Your task to perform on an android device: toggle location history Image 0: 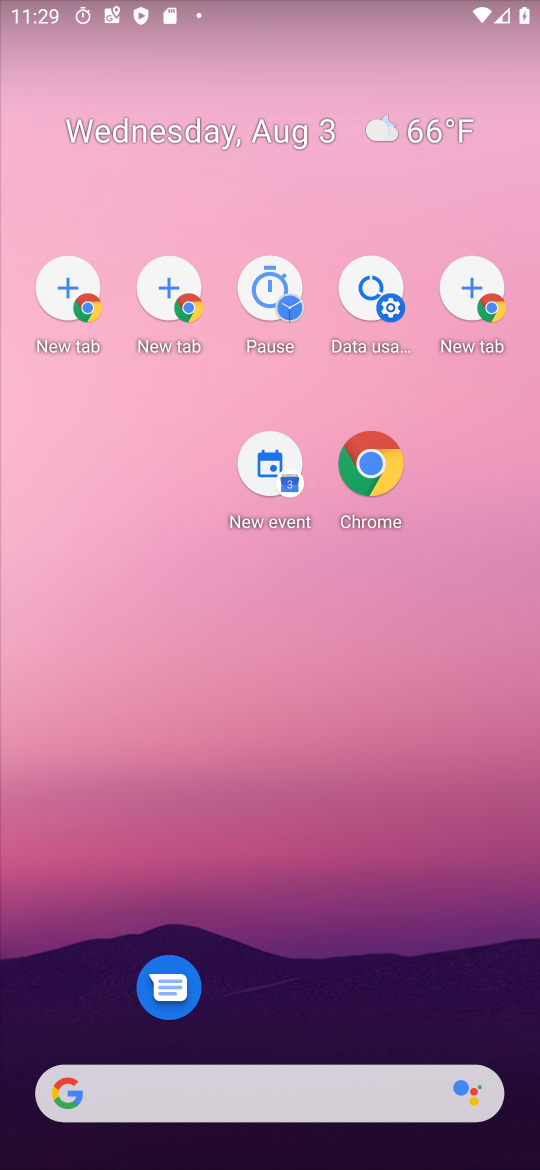
Step 0: drag from (337, 1049) to (496, 105)
Your task to perform on an android device: toggle location history Image 1: 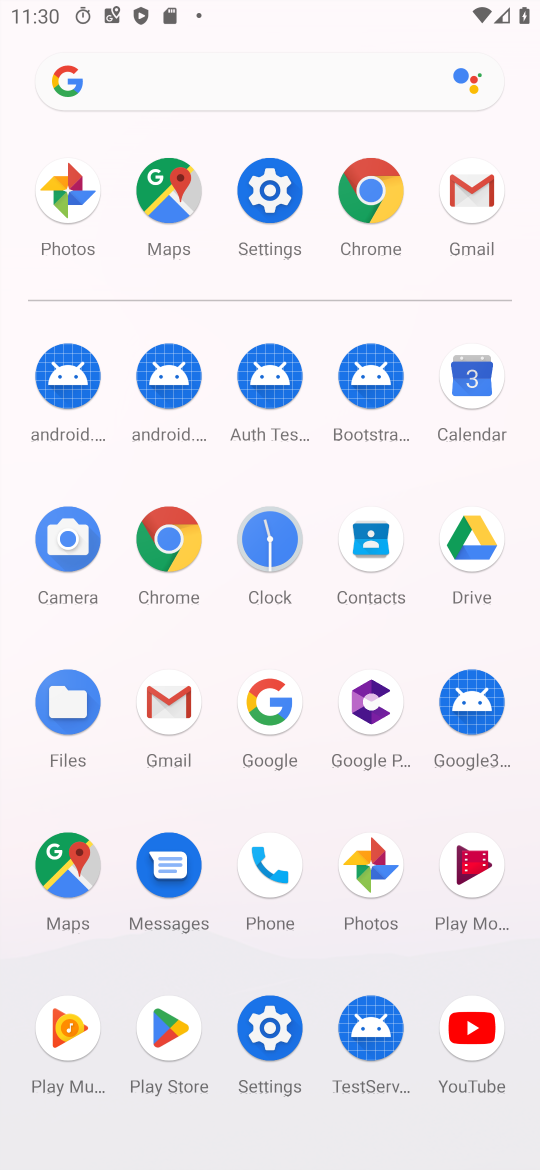
Step 1: click (273, 181)
Your task to perform on an android device: toggle location history Image 2: 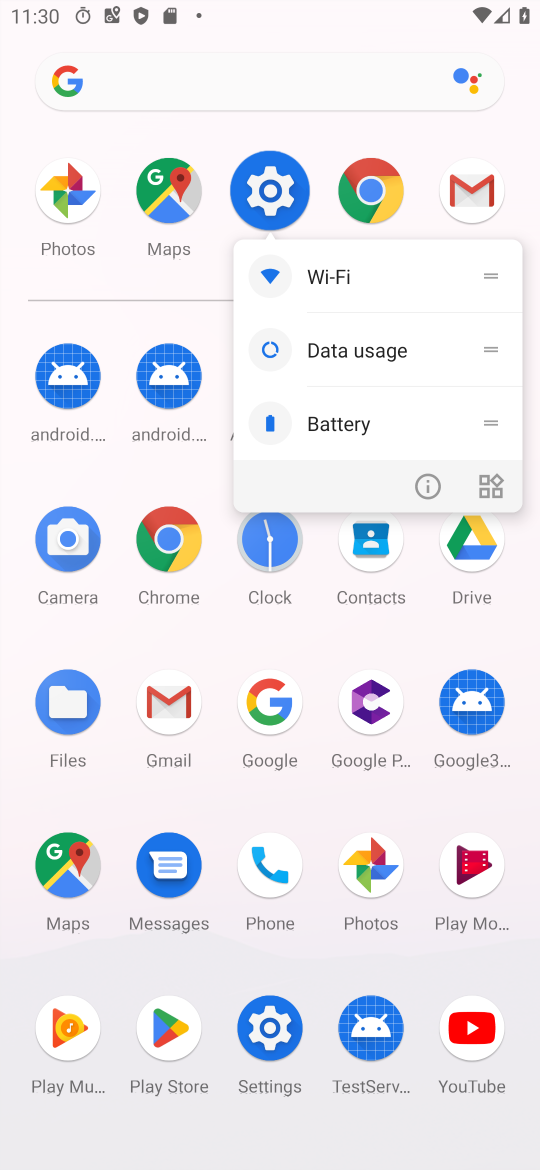
Step 2: click (272, 183)
Your task to perform on an android device: toggle location history Image 3: 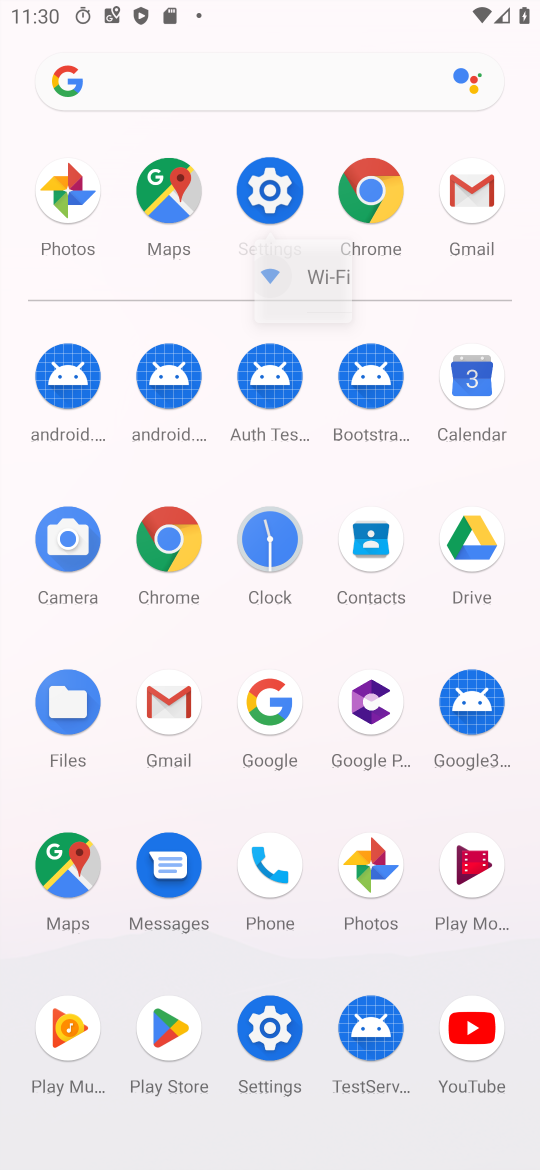
Step 3: click (274, 187)
Your task to perform on an android device: toggle location history Image 4: 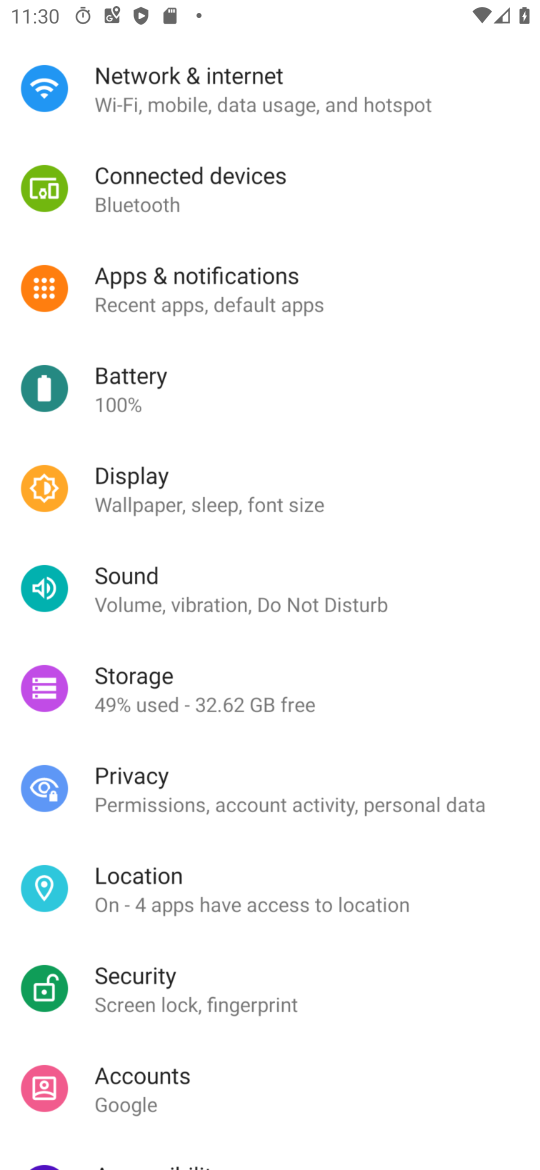
Step 4: click (283, 182)
Your task to perform on an android device: toggle location history Image 5: 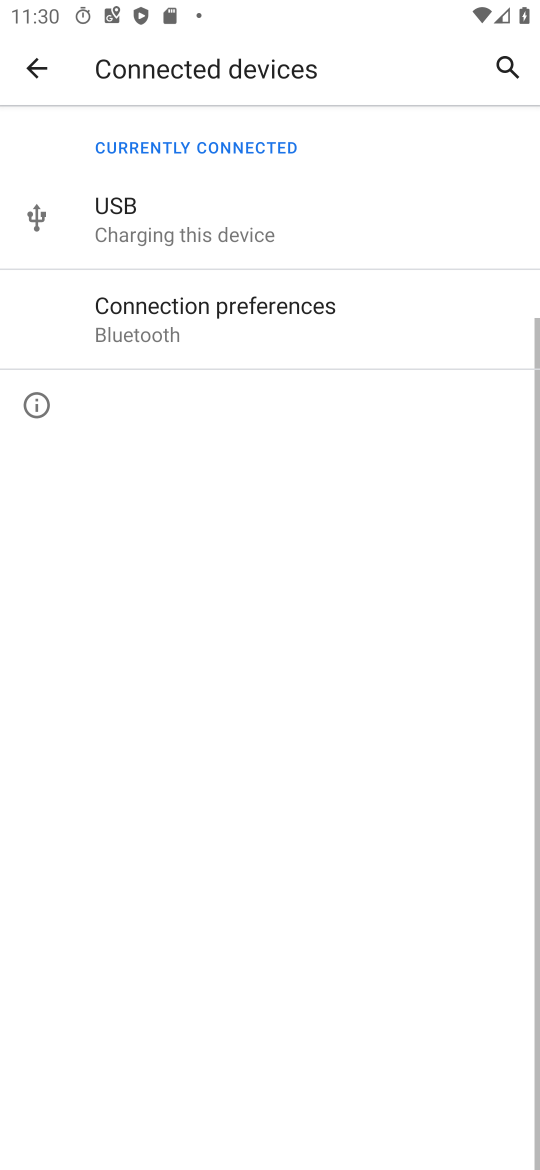
Step 5: click (31, 46)
Your task to perform on an android device: toggle location history Image 6: 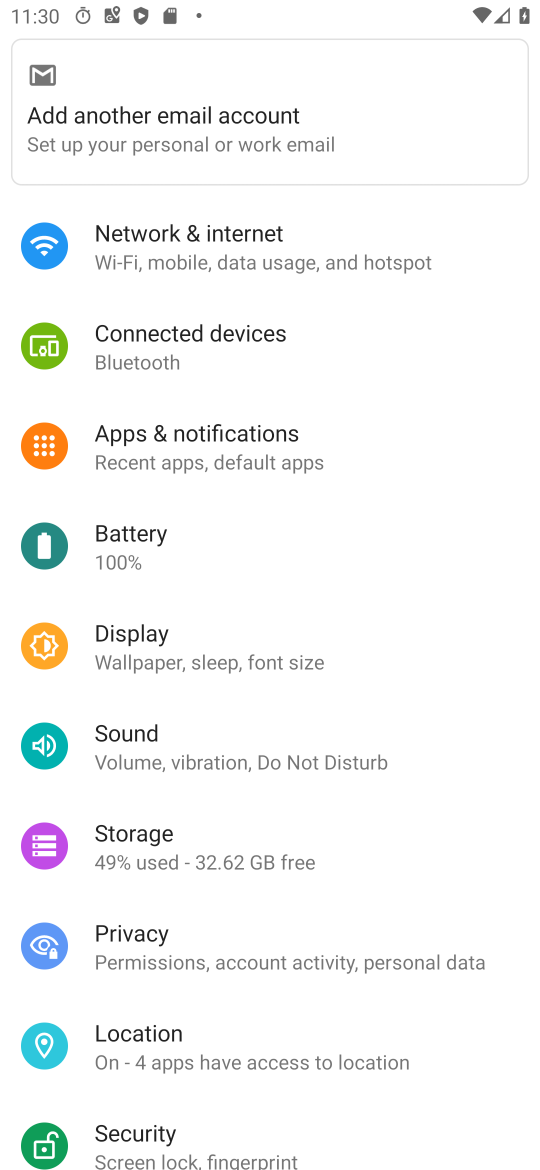
Step 6: click (159, 1042)
Your task to perform on an android device: toggle location history Image 7: 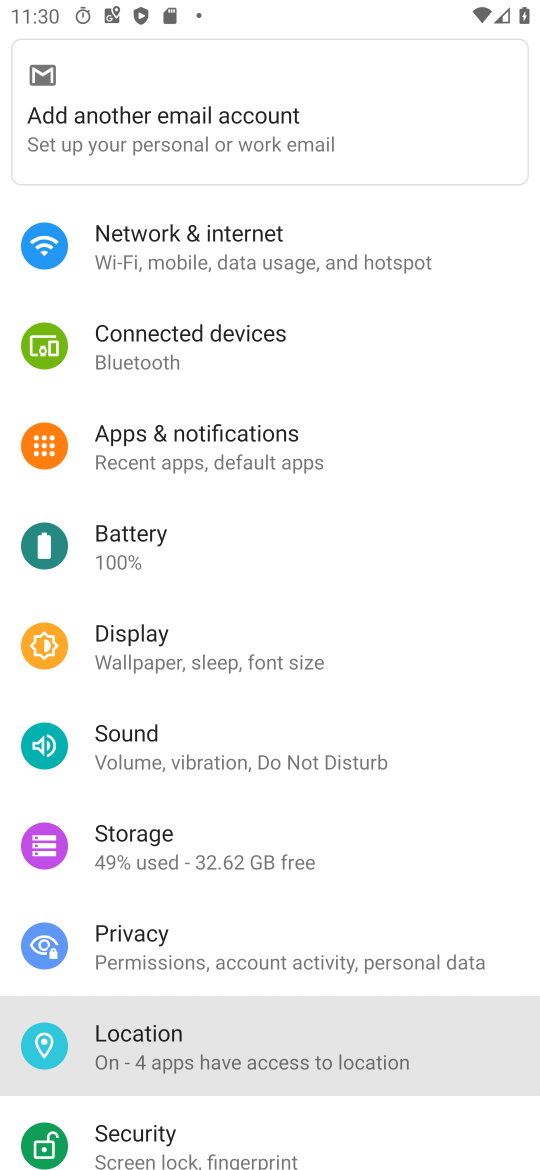
Step 7: click (157, 1043)
Your task to perform on an android device: toggle location history Image 8: 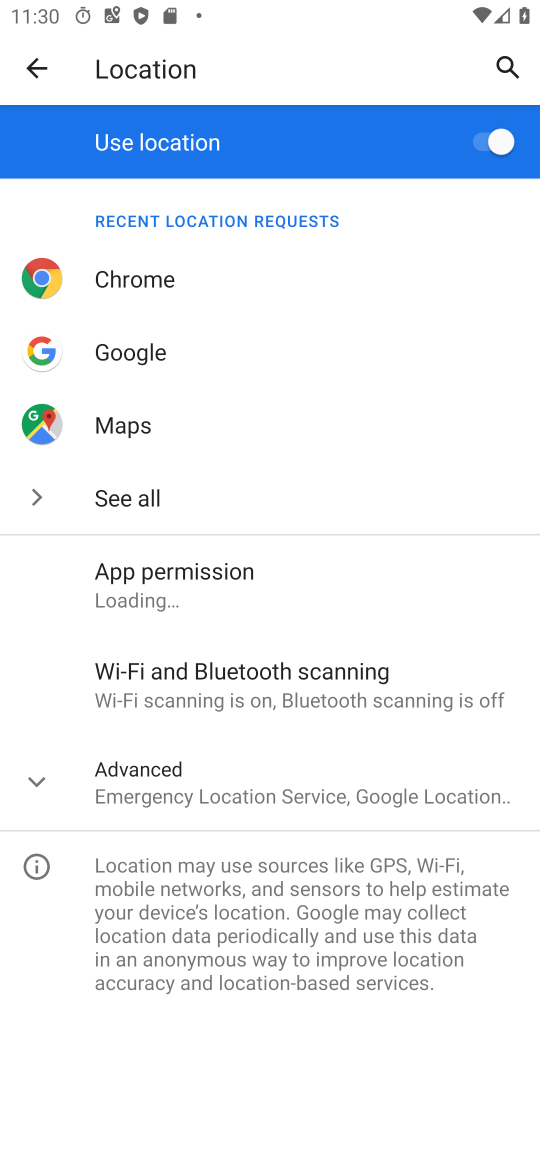
Step 8: click (167, 774)
Your task to perform on an android device: toggle location history Image 9: 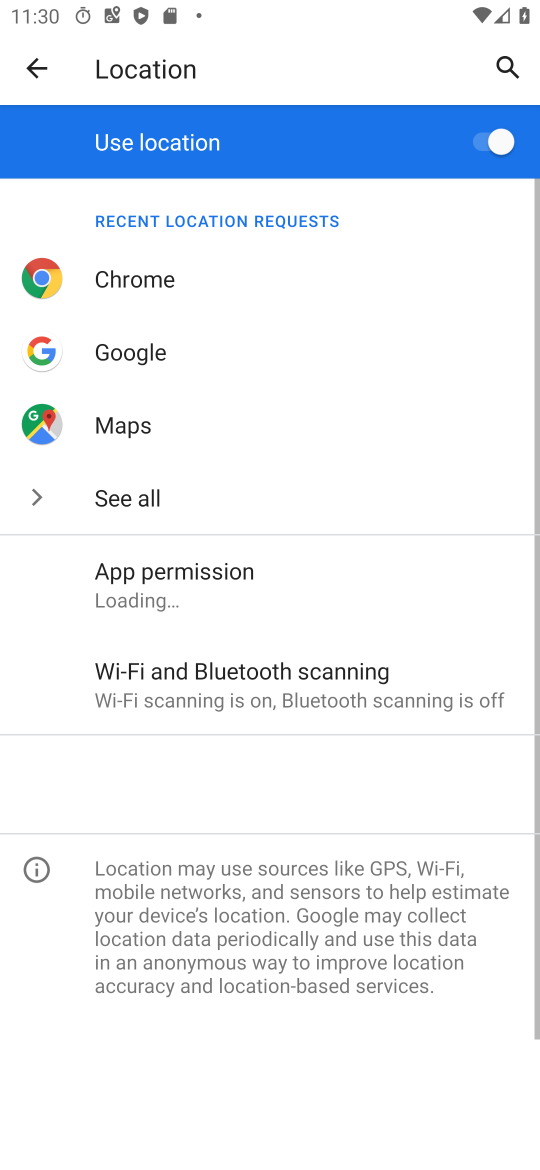
Step 9: click (167, 774)
Your task to perform on an android device: toggle location history Image 10: 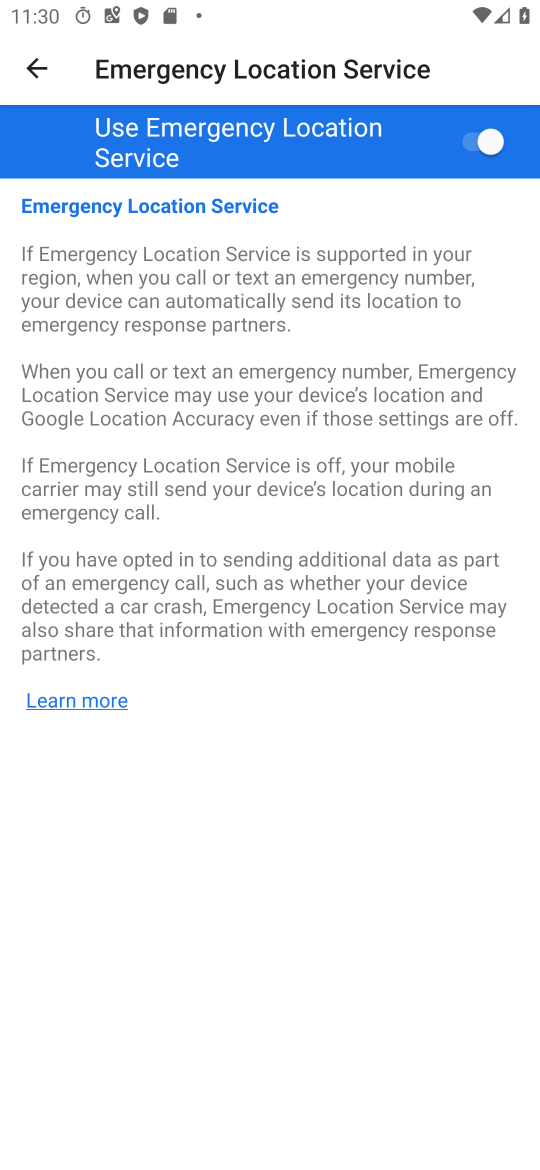
Step 10: click (33, 54)
Your task to perform on an android device: toggle location history Image 11: 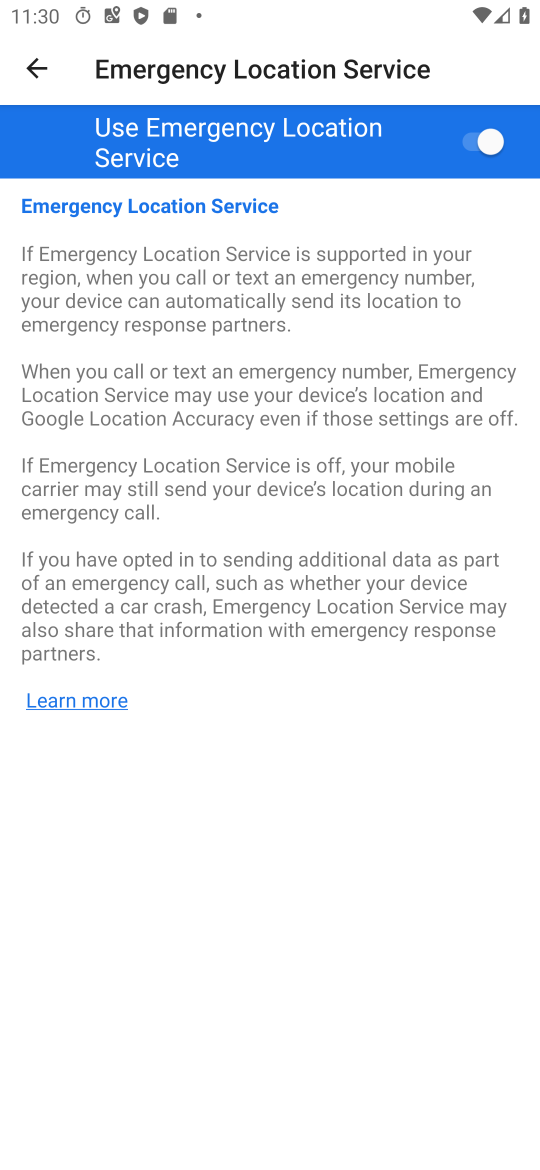
Step 11: click (39, 71)
Your task to perform on an android device: toggle location history Image 12: 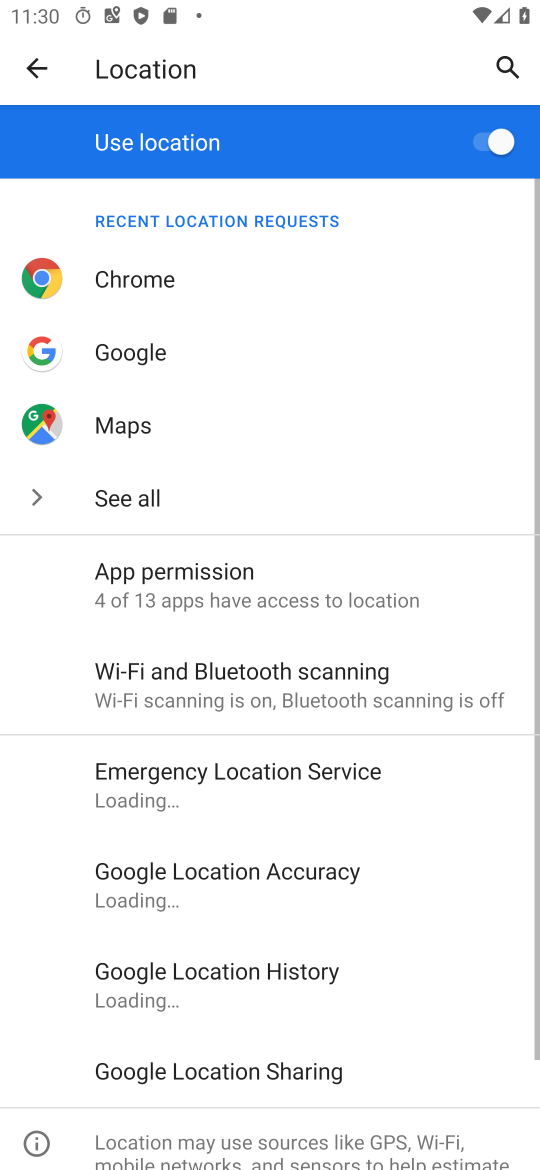
Step 12: click (42, 83)
Your task to perform on an android device: toggle location history Image 13: 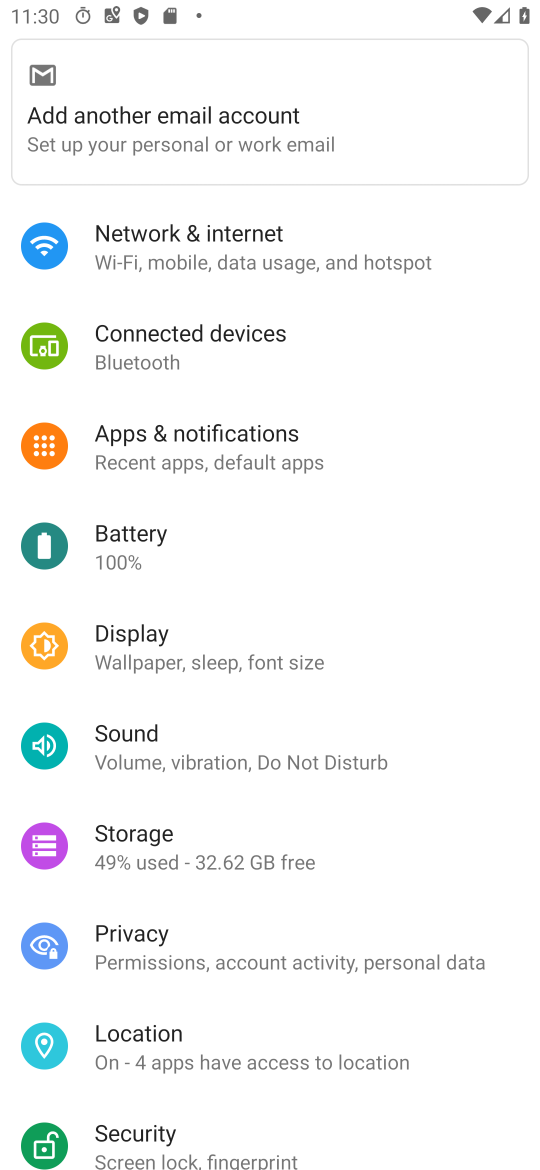
Step 13: click (129, 1039)
Your task to perform on an android device: toggle location history Image 14: 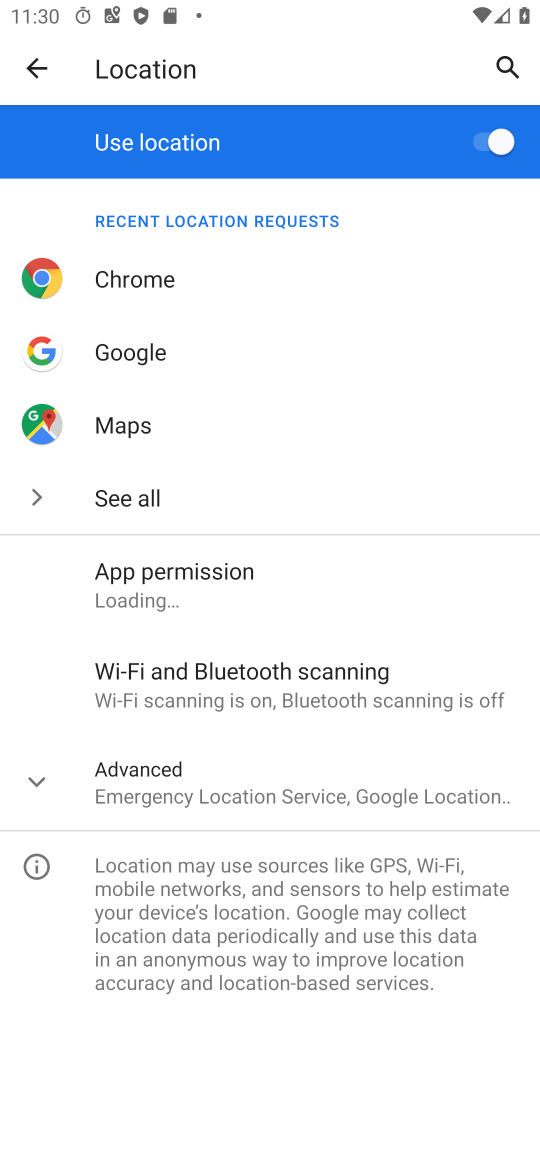
Step 14: click (193, 777)
Your task to perform on an android device: toggle location history Image 15: 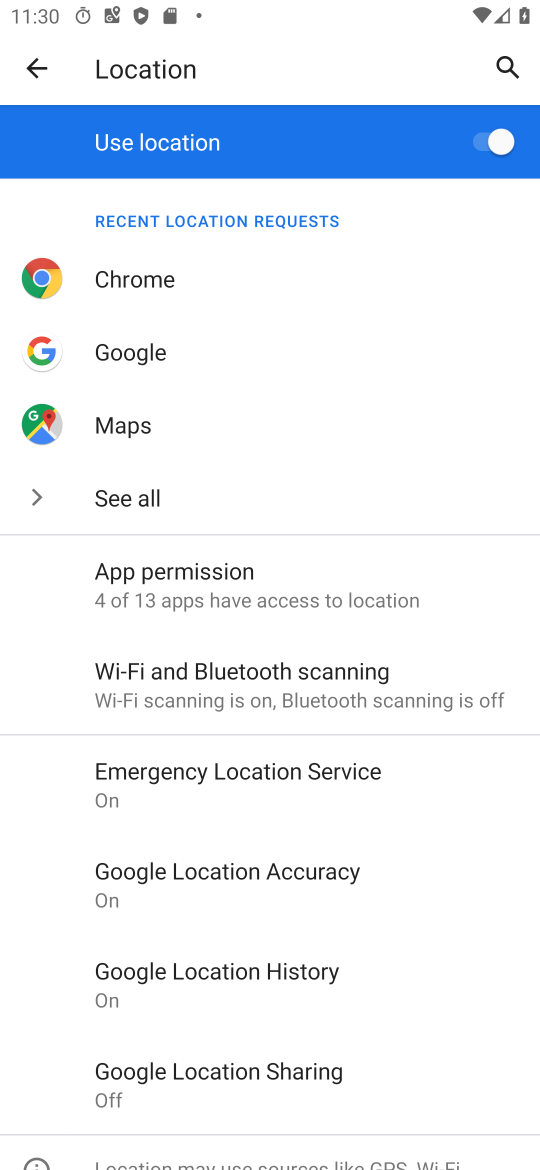
Step 15: click (301, 975)
Your task to perform on an android device: toggle location history Image 16: 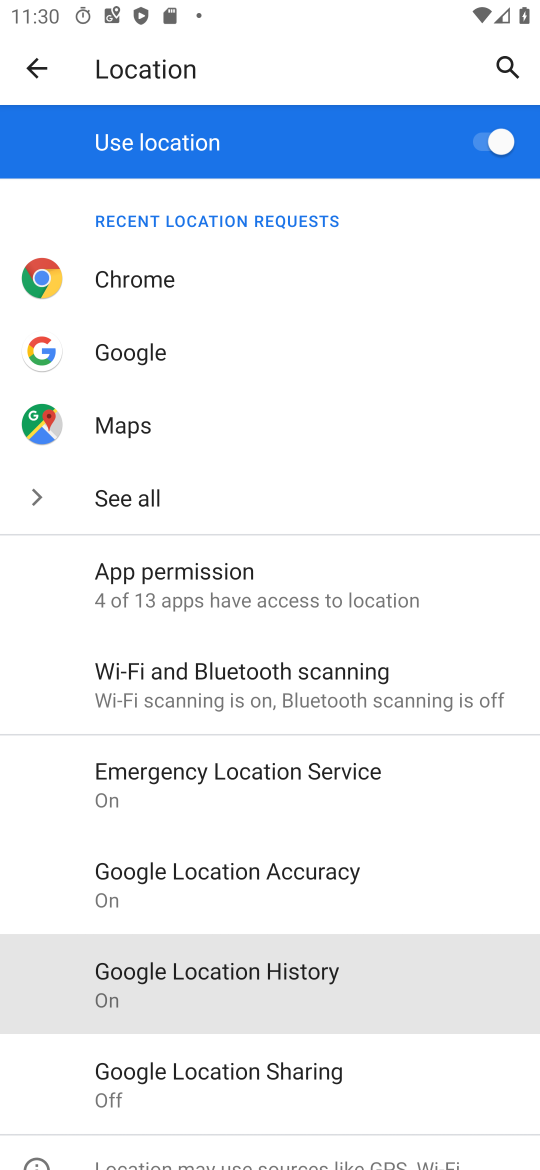
Step 16: click (301, 975)
Your task to perform on an android device: toggle location history Image 17: 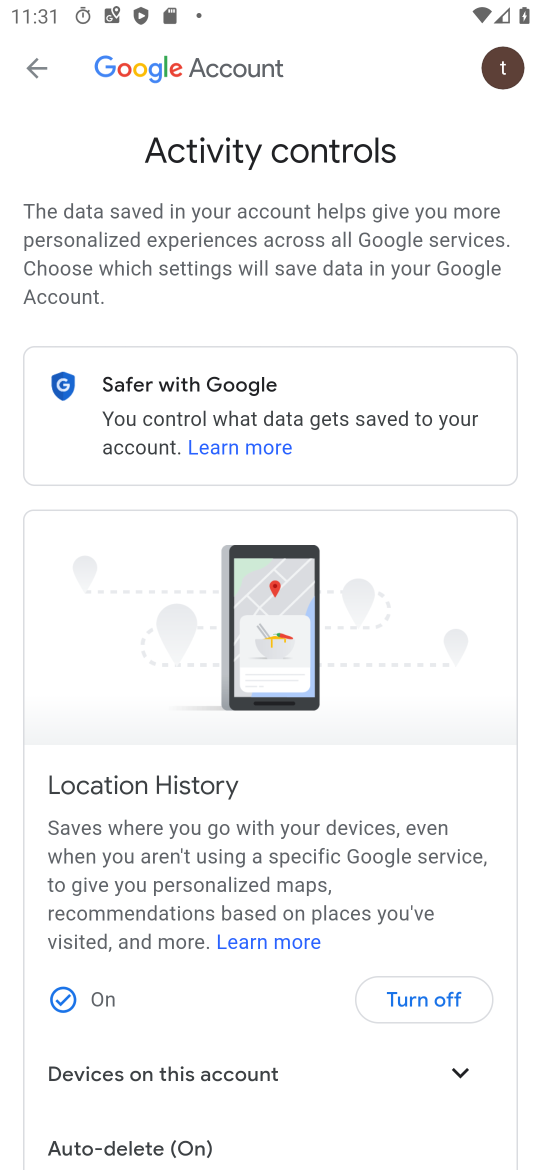
Step 17: task complete